Your task to perform on an android device: Open settings on Google Maps Image 0: 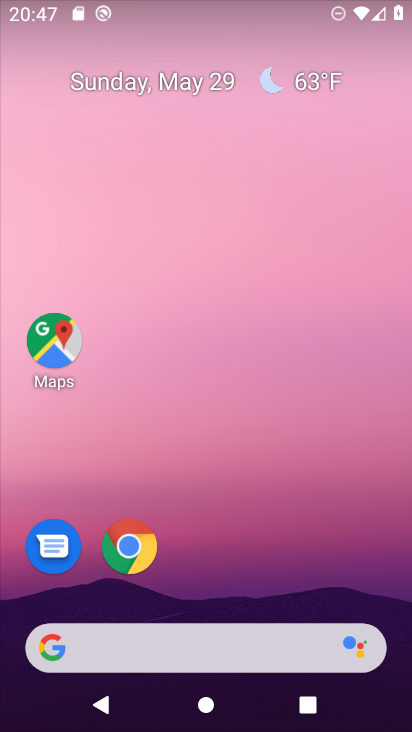
Step 0: press home button
Your task to perform on an android device: Open settings on Google Maps Image 1: 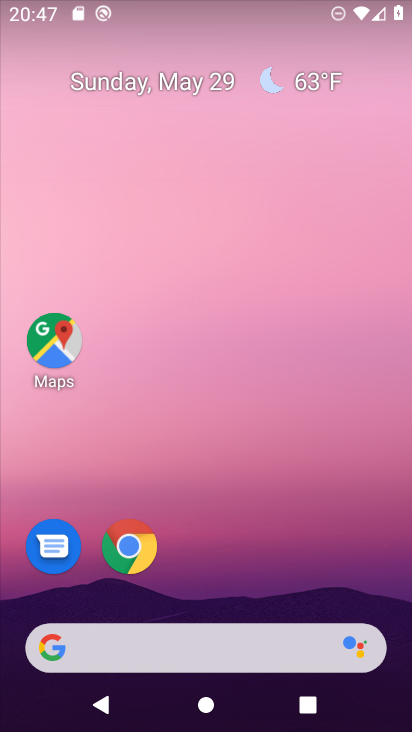
Step 1: click (49, 359)
Your task to perform on an android device: Open settings on Google Maps Image 2: 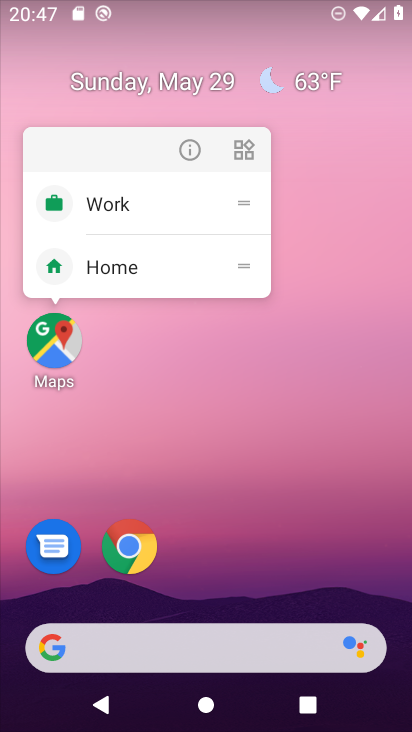
Step 2: click (52, 355)
Your task to perform on an android device: Open settings on Google Maps Image 3: 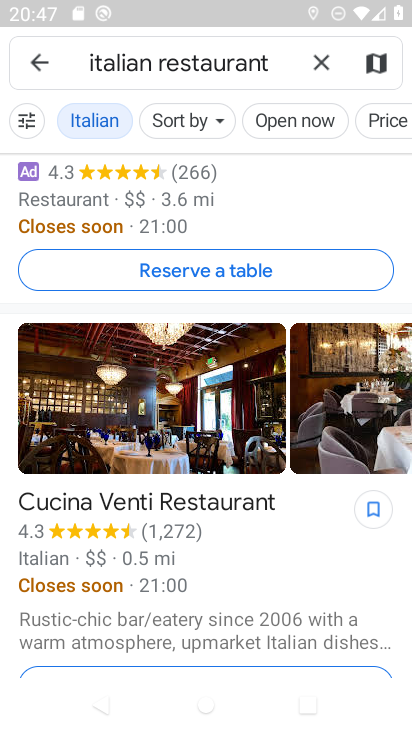
Step 3: click (36, 54)
Your task to perform on an android device: Open settings on Google Maps Image 4: 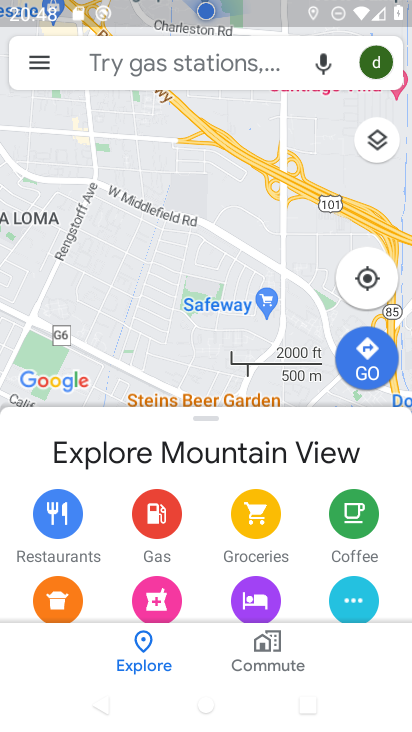
Step 4: click (44, 62)
Your task to perform on an android device: Open settings on Google Maps Image 5: 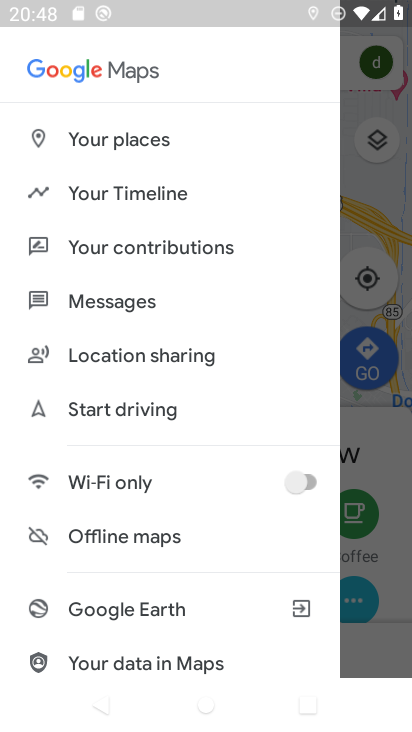
Step 5: drag from (192, 672) to (237, 101)
Your task to perform on an android device: Open settings on Google Maps Image 6: 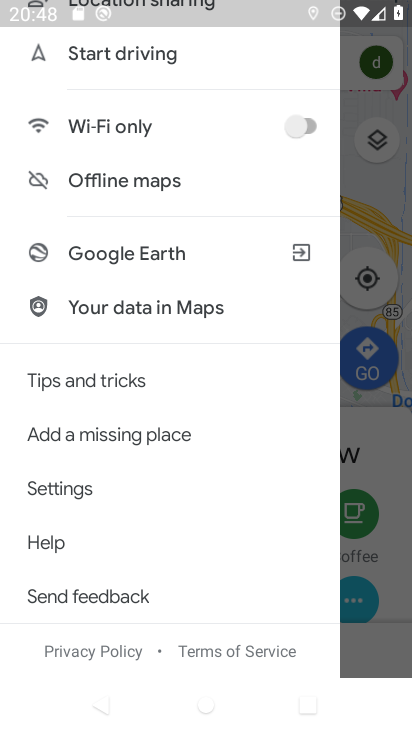
Step 6: click (80, 495)
Your task to perform on an android device: Open settings on Google Maps Image 7: 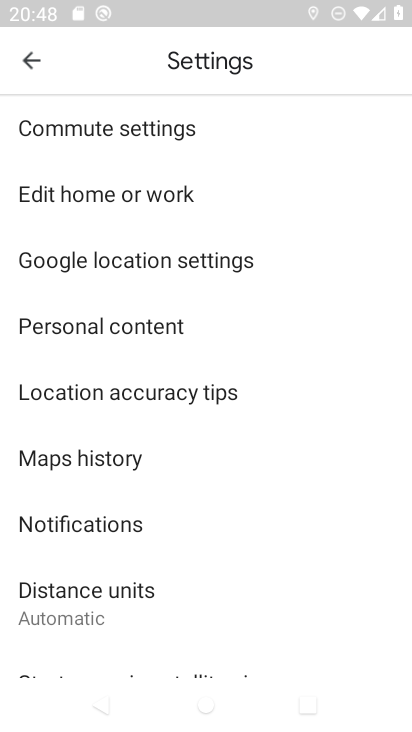
Step 7: task complete